Your task to perform on an android device: empty trash in google photos Image 0: 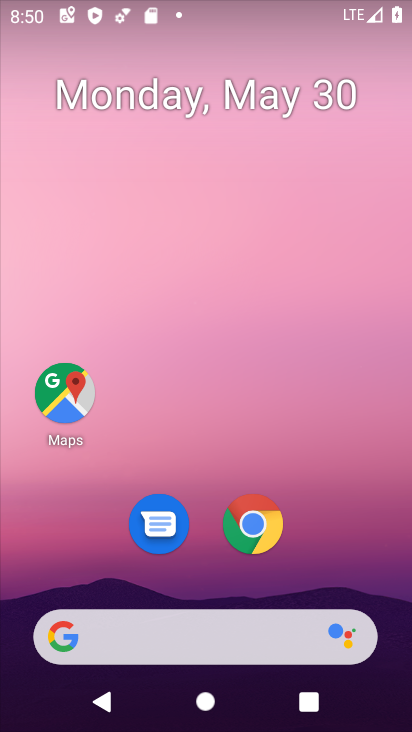
Step 0: drag from (328, 552) to (318, 2)
Your task to perform on an android device: empty trash in google photos Image 1: 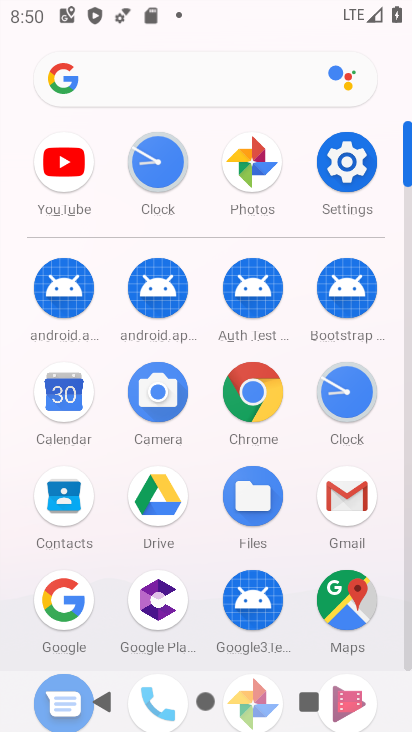
Step 1: click (247, 145)
Your task to perform on an android device: empty trash in google photos Image 2: 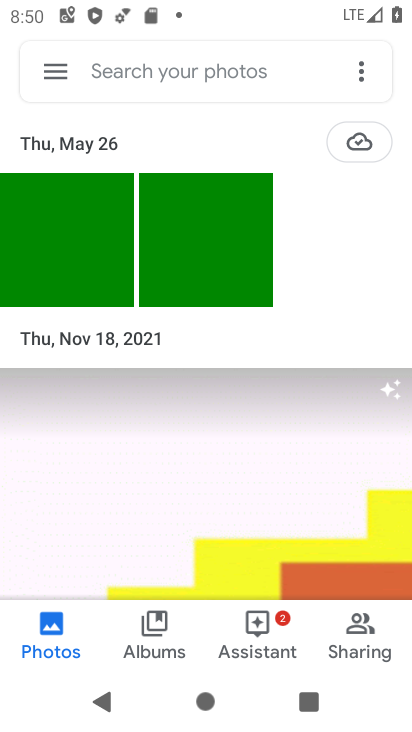
Step 2: click (61, 70)
Your task to perform on an android device: empty trash in google photos Image 3: 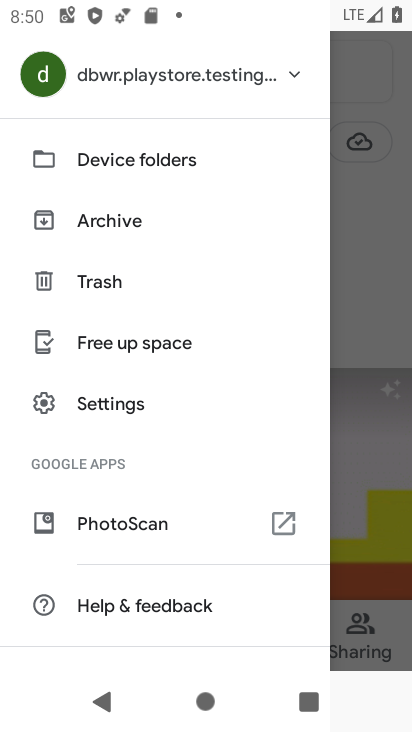
Step 3: click (92, 281)
Your task to perform on an android device: empty trash in google photos Image 4: 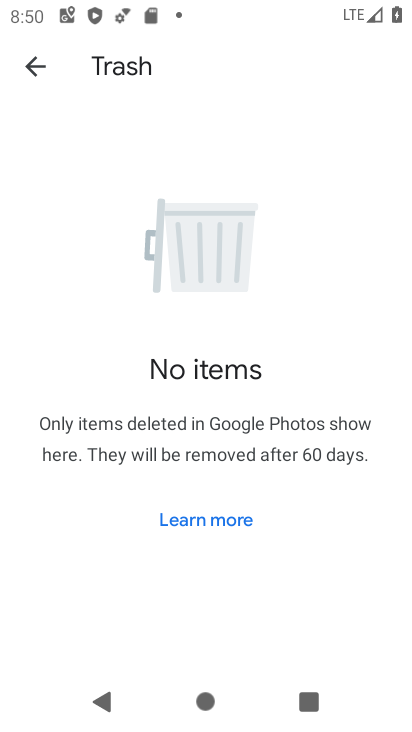
Step 4: task complete